Your task to perform on an android device: turn pop-ups on in chrome Image 0: 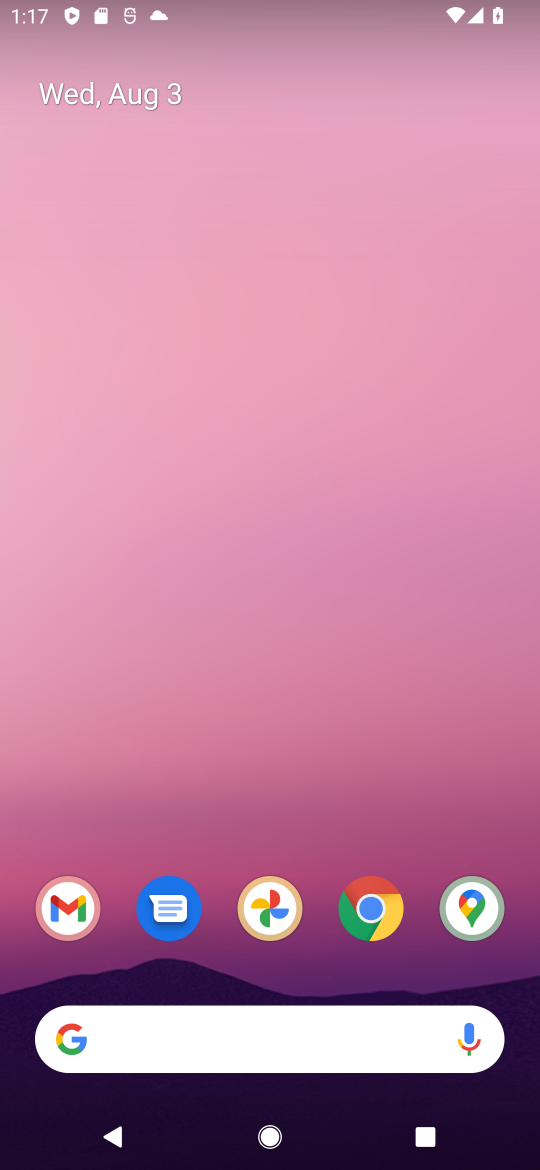
Step 0: click (352, 924)
Your task to perform on an android device: turn pop-ups on in chrome Image 1: 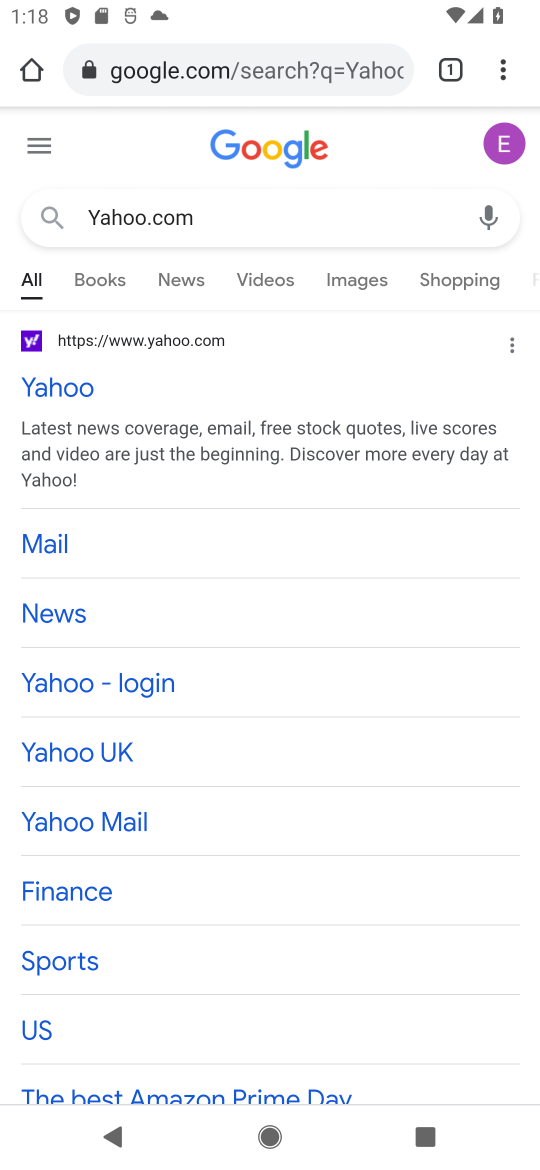
Step 1: click (501, 68)
Your task to perform on an android device: turn pop-ups on in chrome Image 2: 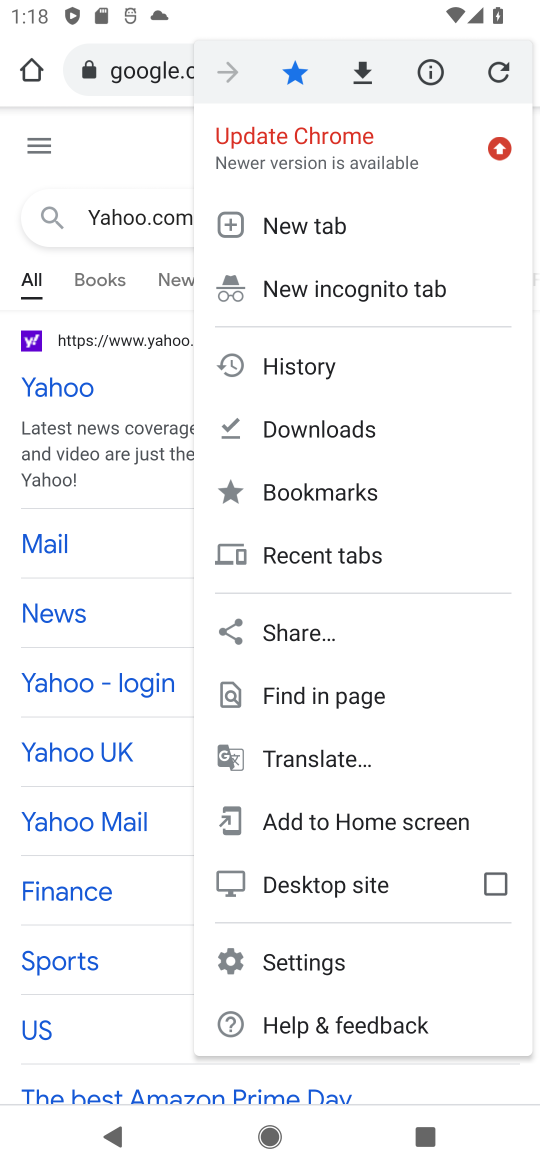
Step 2: click (301, 955)
Your task to perform on an android device: turn pop-ups on in chrome Image 3: 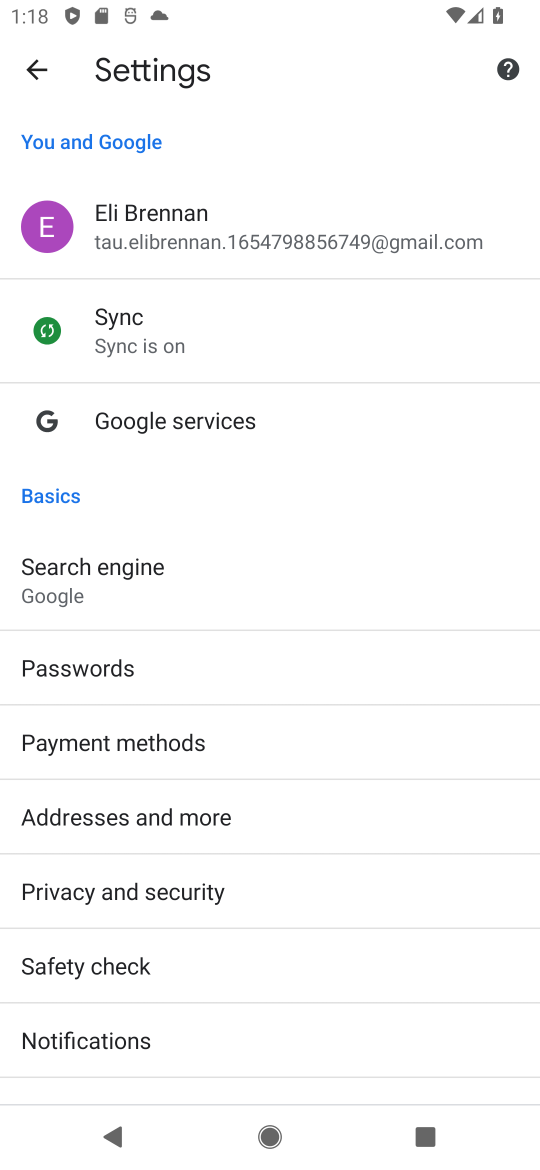
Step 3: drag from (151, 906) to (134, 410)
Your task to perform on an android device: turn pop-ups on in chrome Image 4: 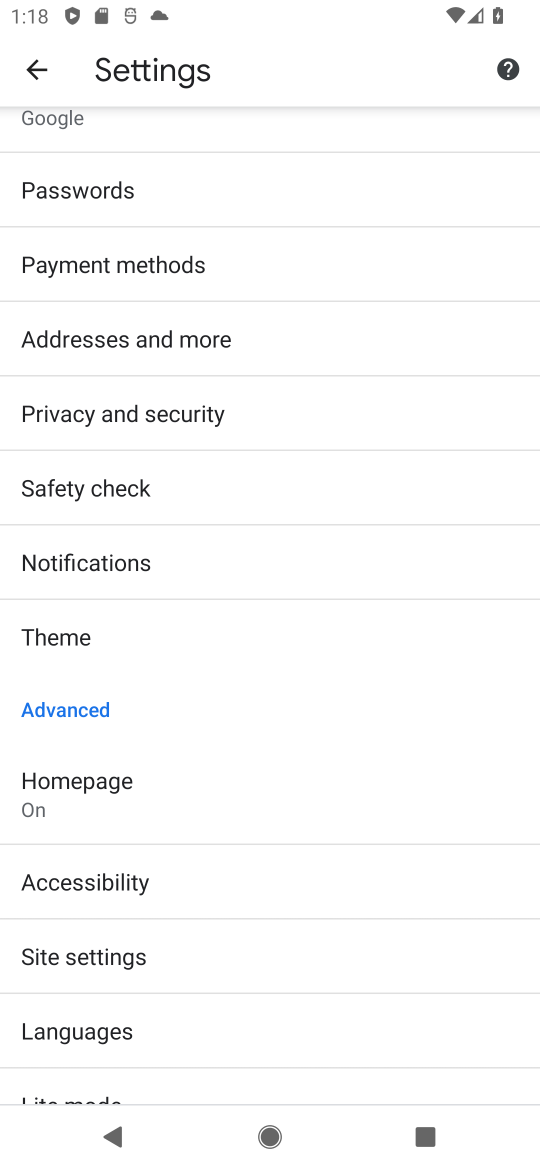
Step 4: click (101, 958)
Your task to perform on an android device: turn pop-ups on in chrome Image 5: 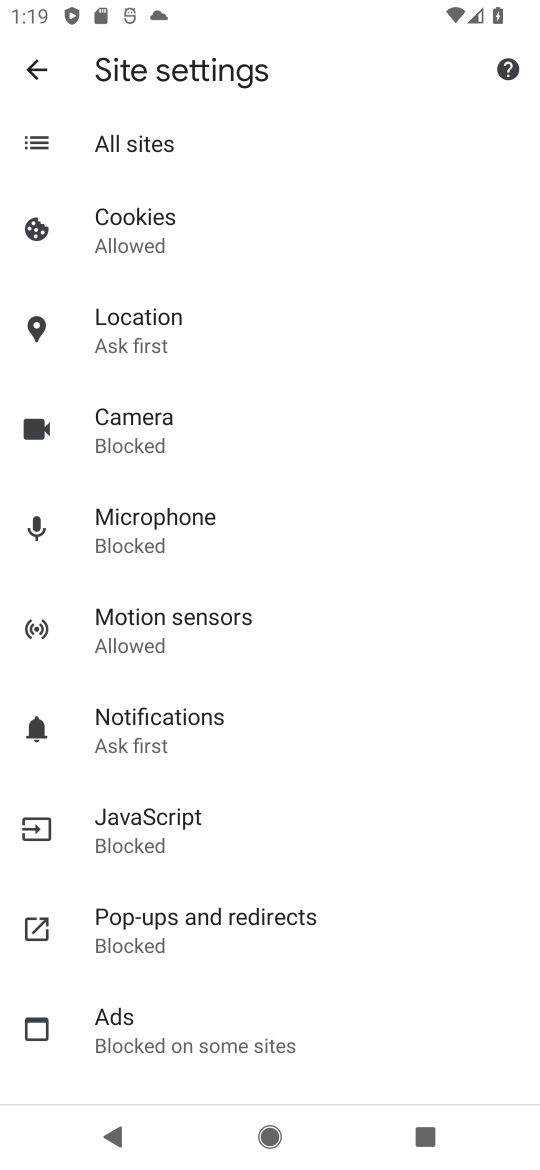
Step 5: click (167, 939)
Your task to perform on an android device: turn pop-ups on in chrome Image 6: 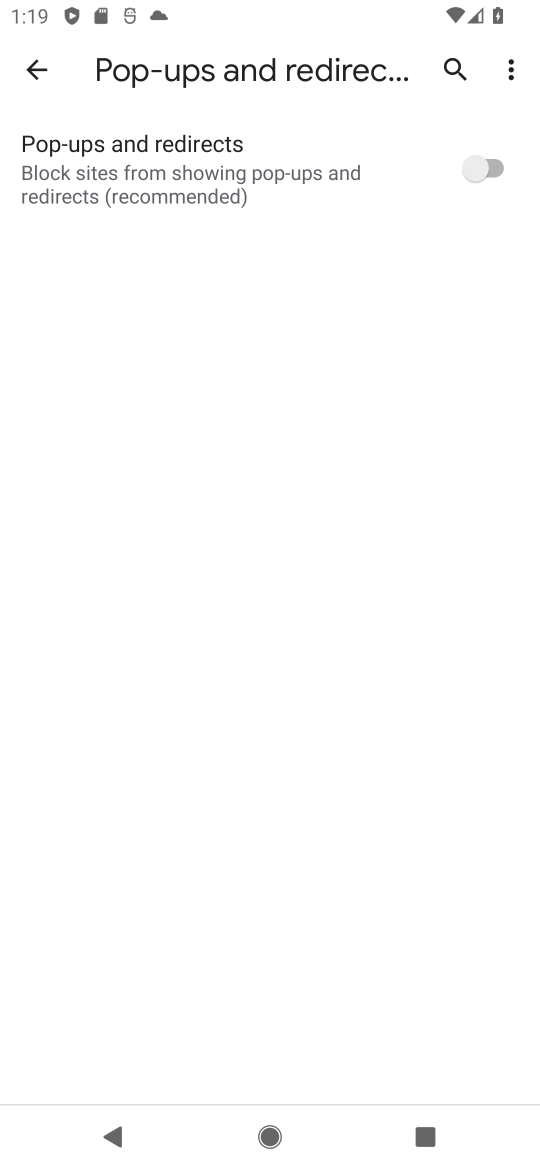
Step 6: click (500, 172)
Your task to perform on an android device: turn pop-ups on in chrome Image 7: 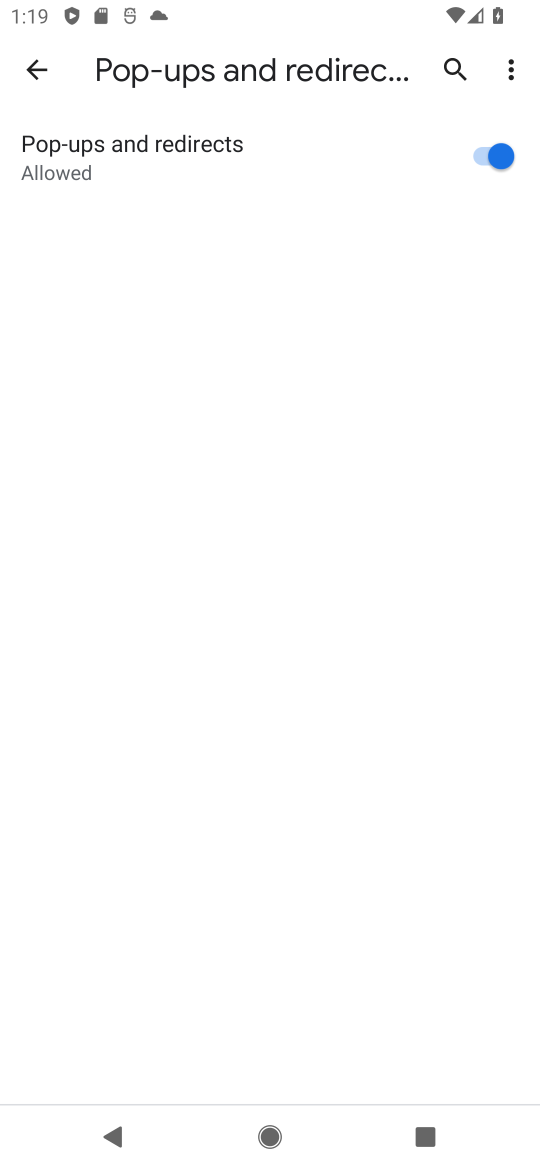
Step 7: task complete